Your task to perform on an android device: delete browsing data in the chrome app Image 0: 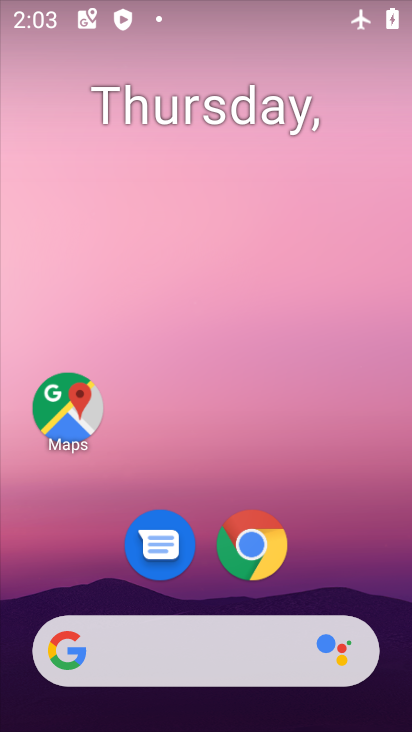
Step 0: click (274, 540)
Your task to perform on an android device: delete browsing data in the chrome app Image 1: 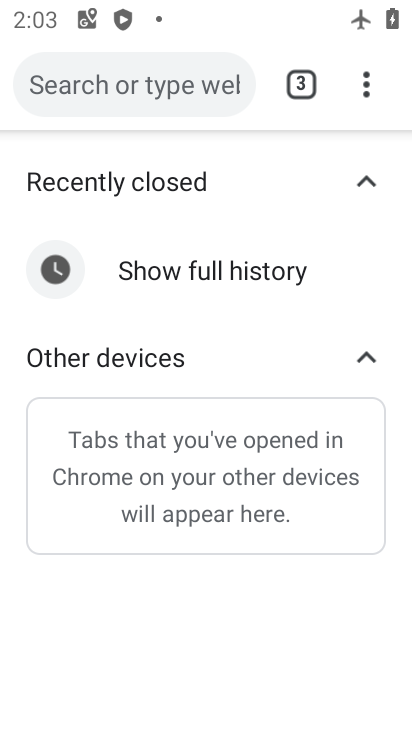
Step 1: click (365, 80)
Your task to perform on an android device: delete browsing data in the chrome app Image 2: 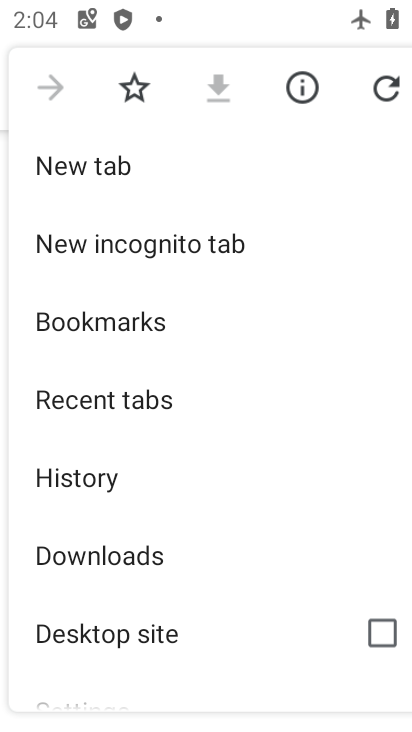
Step 2: click (87, 481)
Your task to perform on an android device: delete browsing data in the chrome app Image 3: 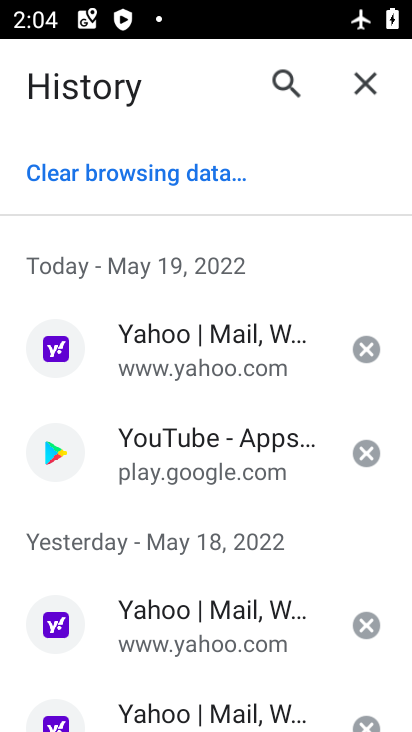
Step 3: click (113, 172)
Your task to perform on an android device: delete browsing data in the chrome app Image 4: 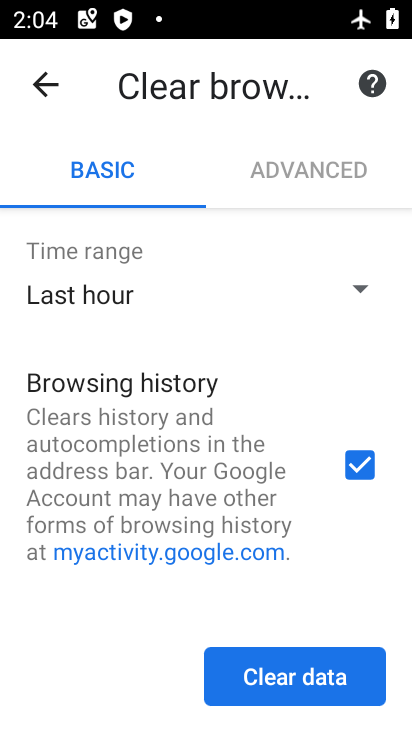
Step 4: click (297, 678)
Your task to perform on an android device: delete browsing data in the chrome app Image 5: 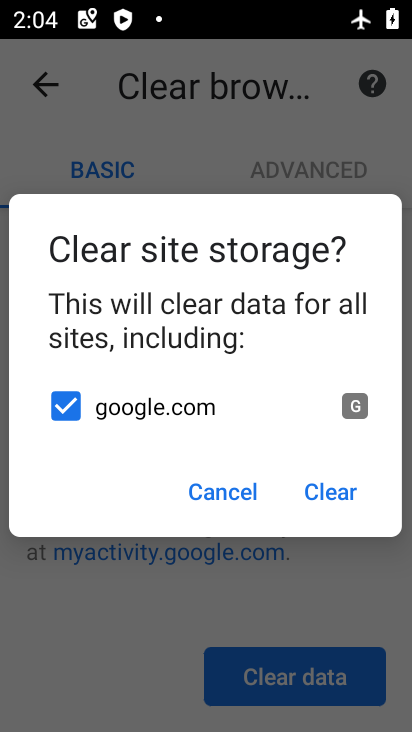
Step 5: click (342, 490)
Your task to perform on an android device: delete browsing data in the chrome app Image 6: 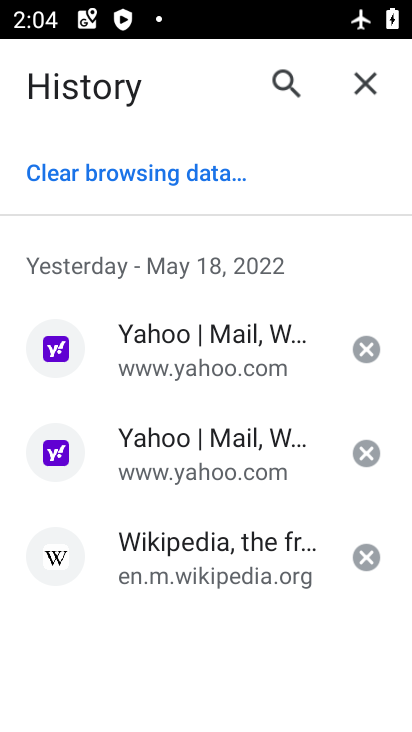
Step 6: task complete